Your task to perform on an android device: clear all cookies in the chrome app Image 0: 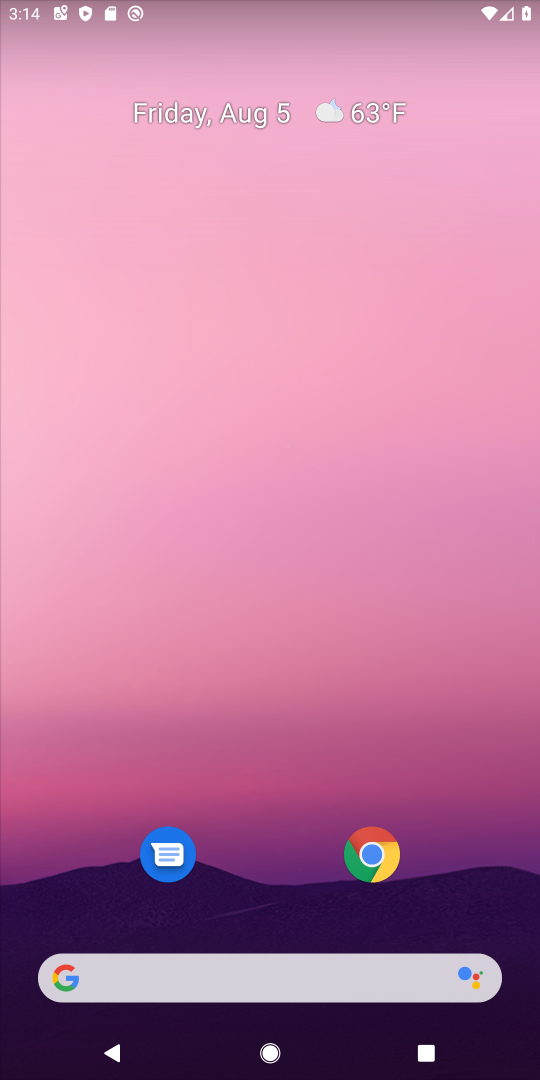
Step 0: click (362, 872)
Your task to perform on an android device: clear all cookies in the chrome app Image 1: 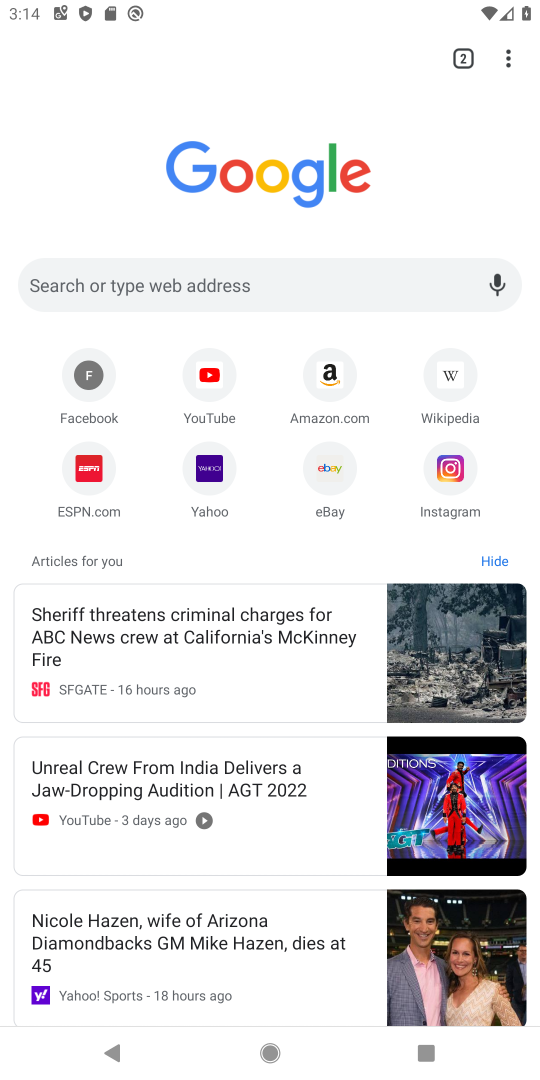
Step 1: click (516, 61)
Your task to perform on an android device: clear all cookies in the chrome app Image 2: 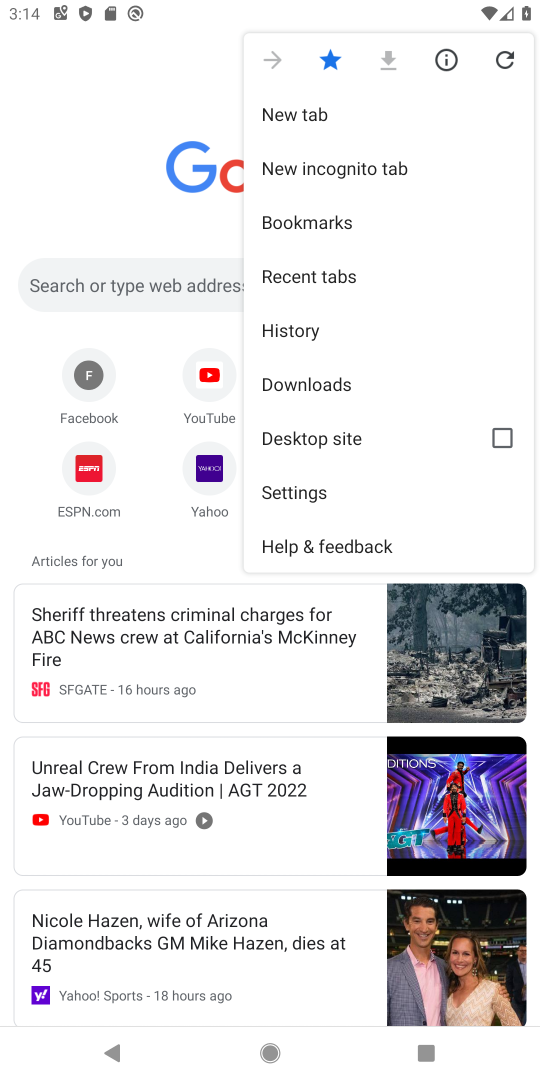
Step 2: click (285, 330)
Your task to perform on an android device: clear all cookies in the chrome app Image 3: 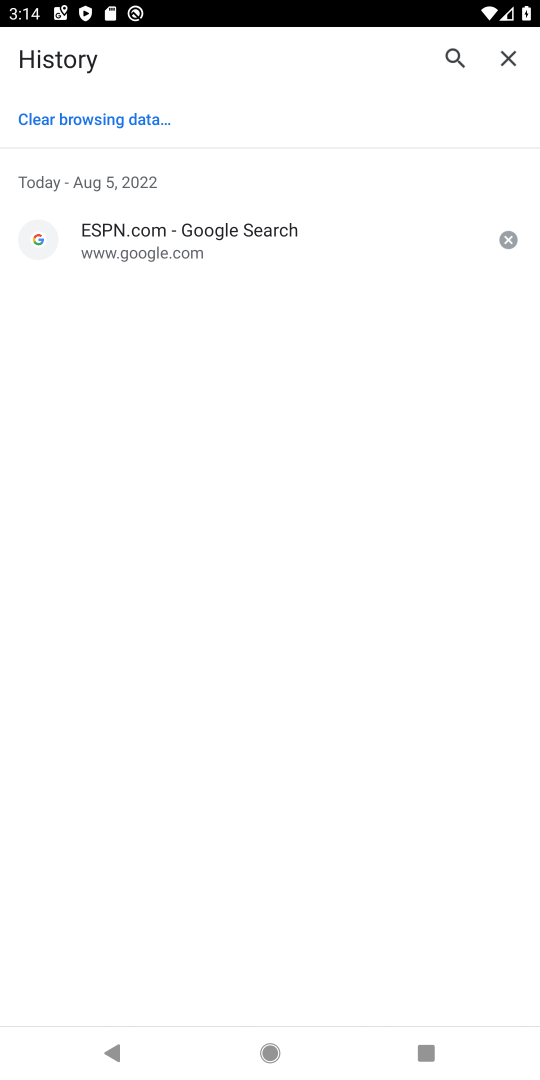
Step 3: click (97, 127)
Your task to perform on an android device: clear all cookies in the chrome app Image 4: 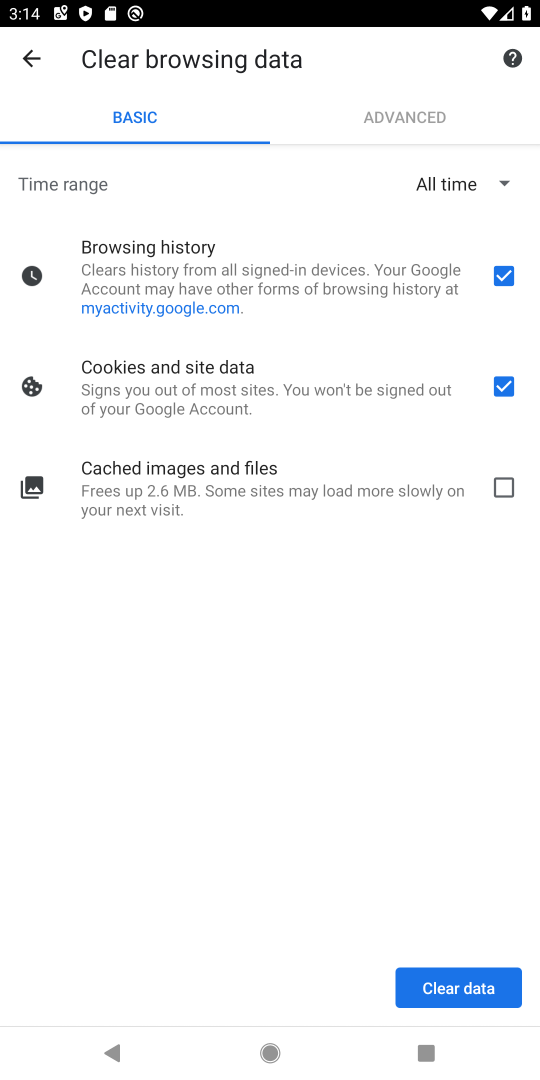
Step 4: click (497, 382)
Your task to perform on an android device: clear all cookies in the chrome app Image 5: 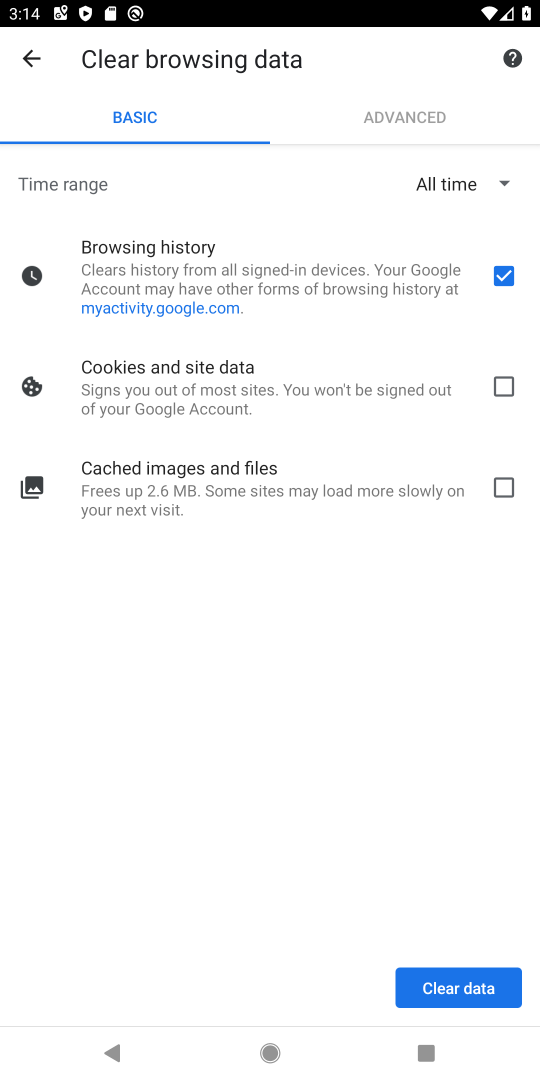
Step 5: click (497, 382)
Your task to perform on an android device: clear all cookies in the chrome app Image 6: 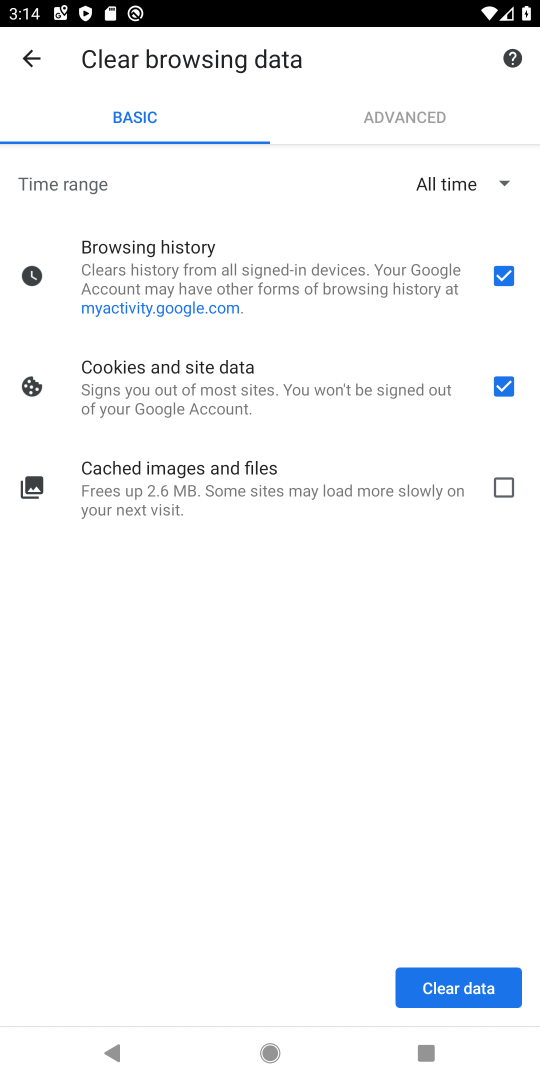
Step 6: click (497, 270)
Your task to perform on an android device: clear all cookies in the chrome app Image 7: 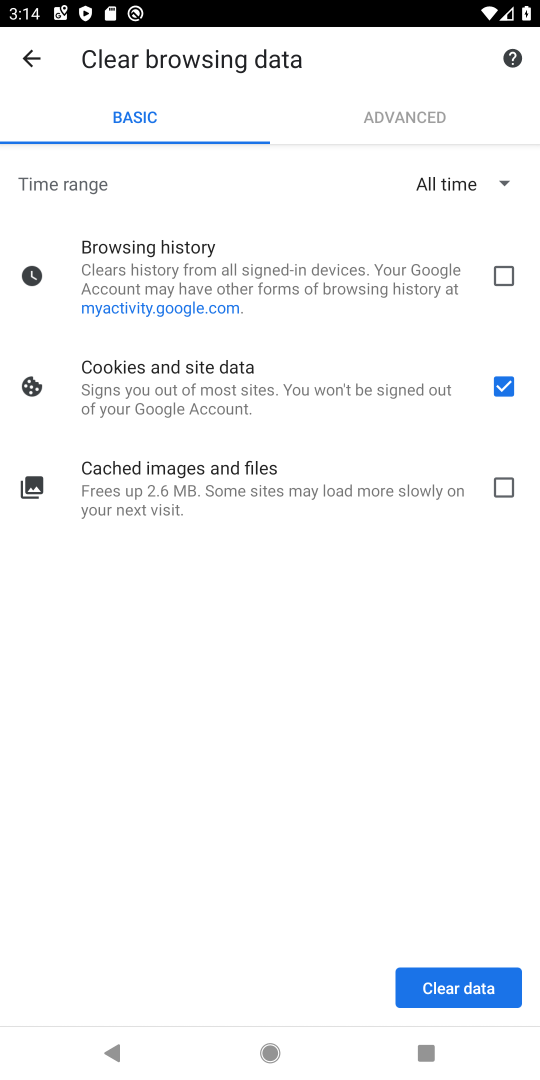
Step 7: click (476, 991)
Your task to perform on an android device: clear all cookies in the chrome app Image 8: 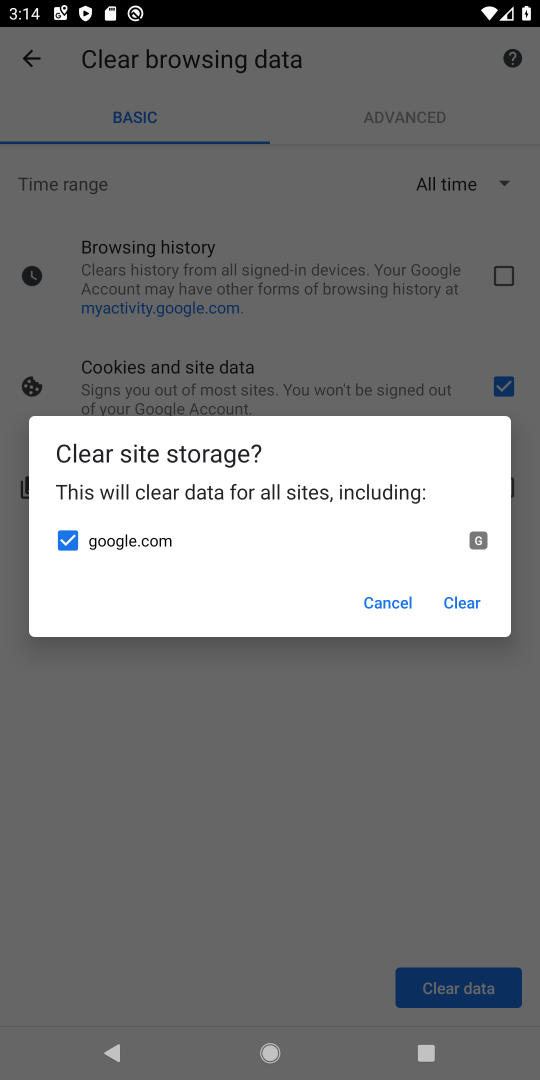
Step 8: click (455, 603)
Your task to perform on an android device: clear all cookies in the chrome app Image 9: 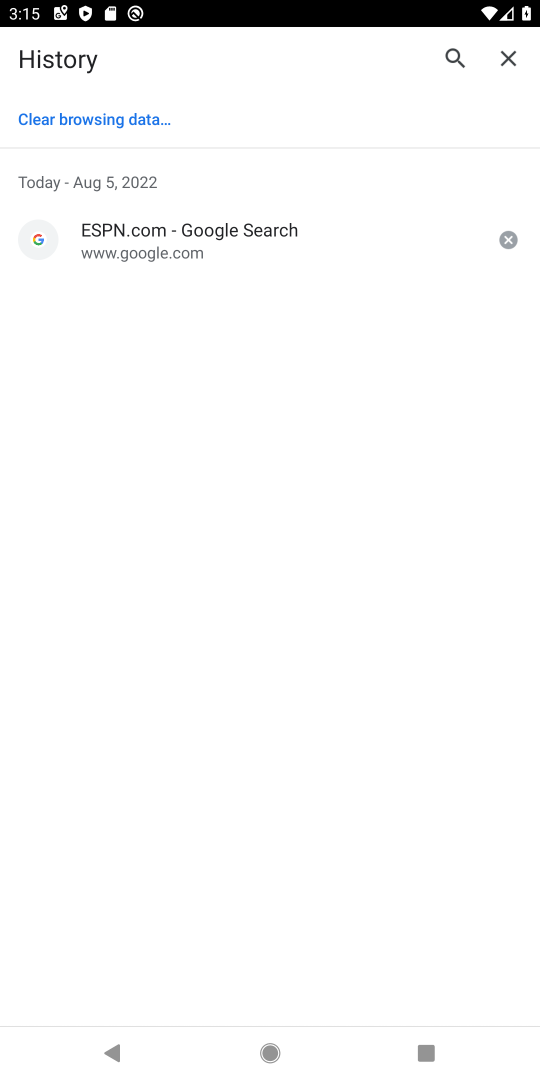
Step 9: task complete